Your task to perform on an android device: turn off location Image 0: 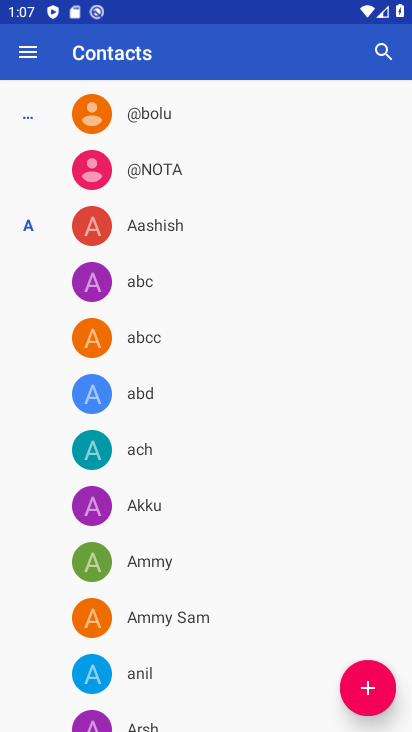
Step 0: press home button
Your task to perform on an android device: turn off location Image 1: 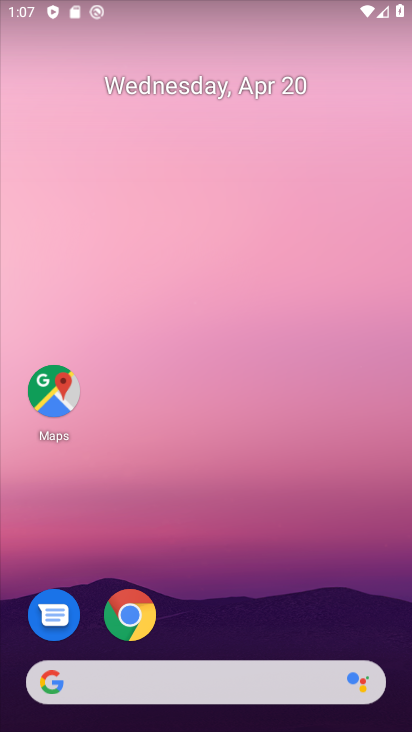
Step 1: drag from (265, 601) to (224, 58)
Your task to perform on an android device: turn off location Image 2: 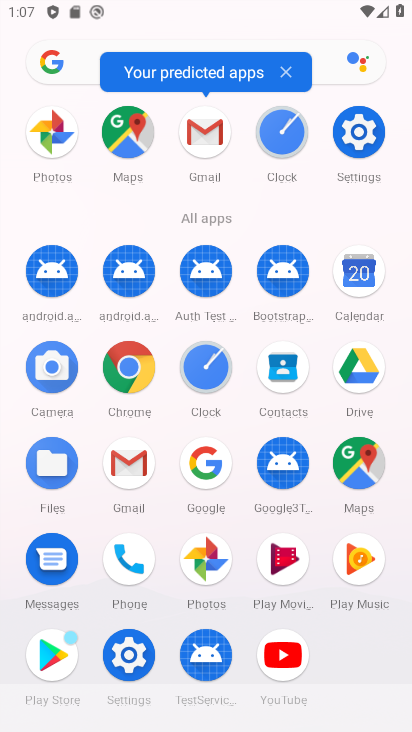
Step 2: click (341, 128)
Your task to perform on an android device: turn off location Image 3: 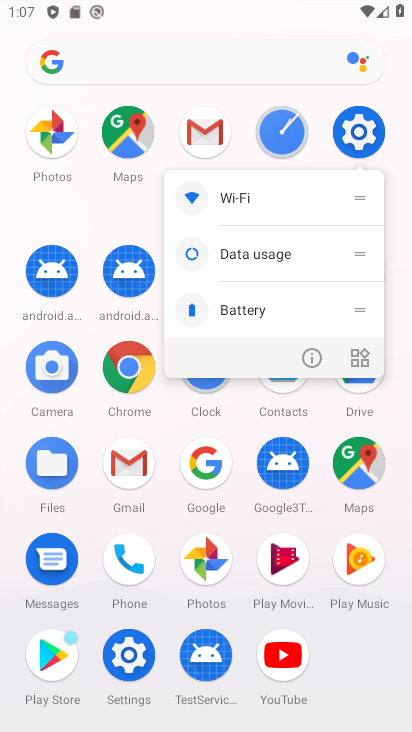
Step 3: click (341, 128)
Your task to perform on an android device: turn off location Image 4: 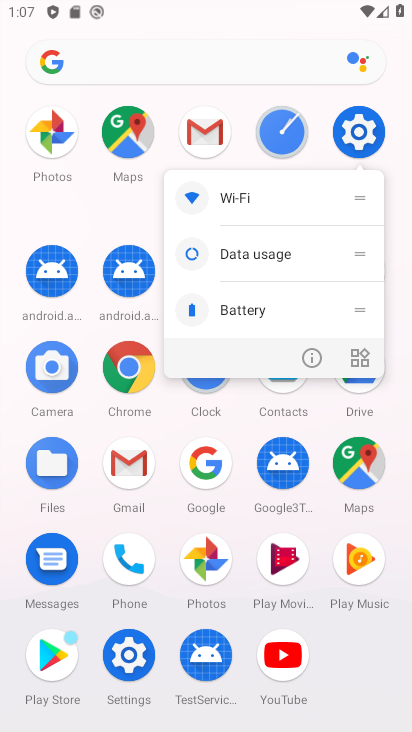
Step 4: click (342, 130)
Your task to perform on an android device: turn off location Image 5: 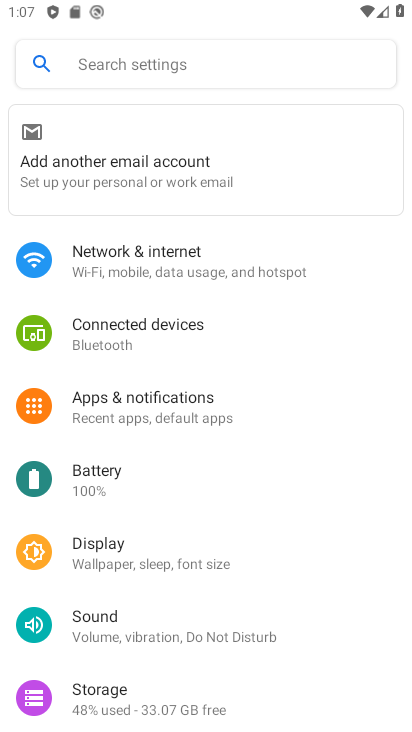
Step 5: drag from (206, 590) to (293, 170)
Your task to perform on an android device: turn off location Image 6: 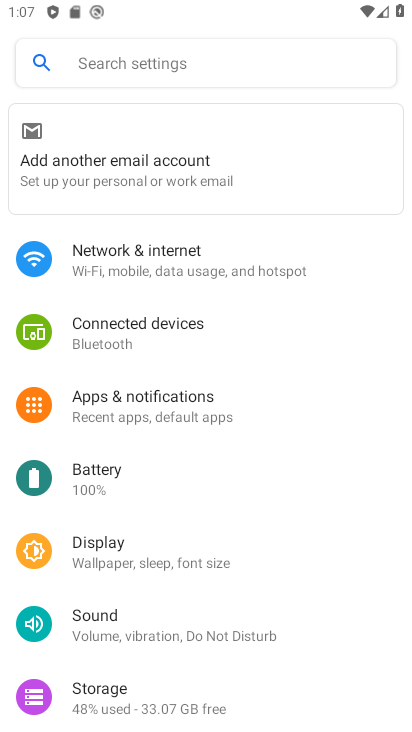
Step 6: drag from (217, 527) to (254, 158)
Your task to perform on an android device: turn off location Image 7: 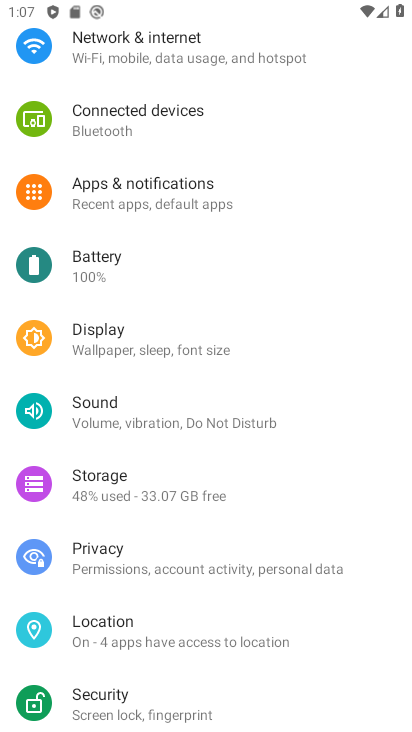
Step 7: click (133, 628)
Your task to perform on an android device: turn off location Image 8: 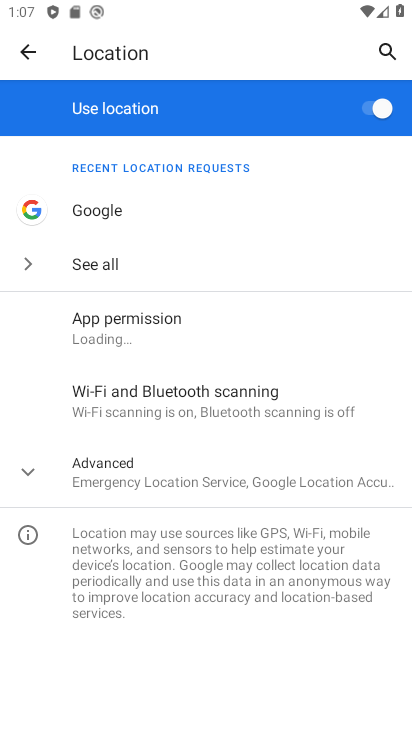
Step 8: click (346, 102)
Your task to perform on an android device: turn off location Image 9: 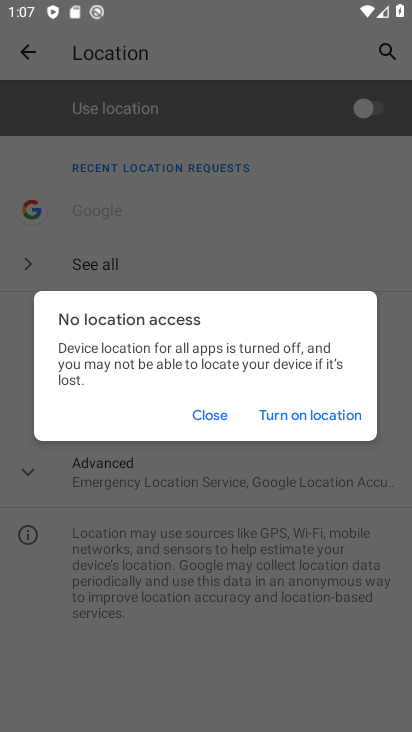
Step 9: task complete